Your task to perform on an android device: turn off data saver in the chrome app Image 0: 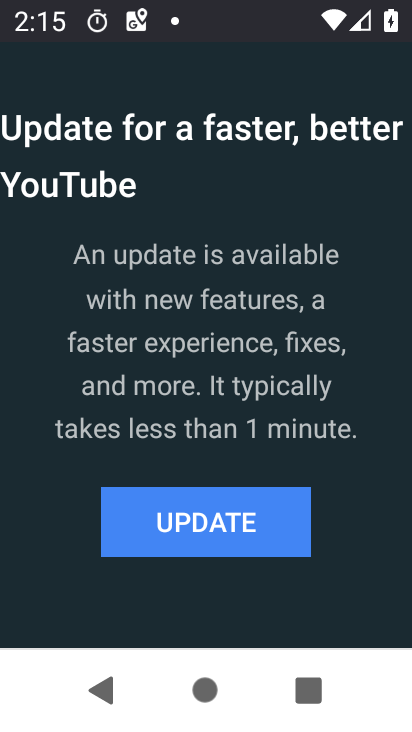
Step 0: press home button
Your task to perform on an android device: turn off data saver in the chrome app Image 1: 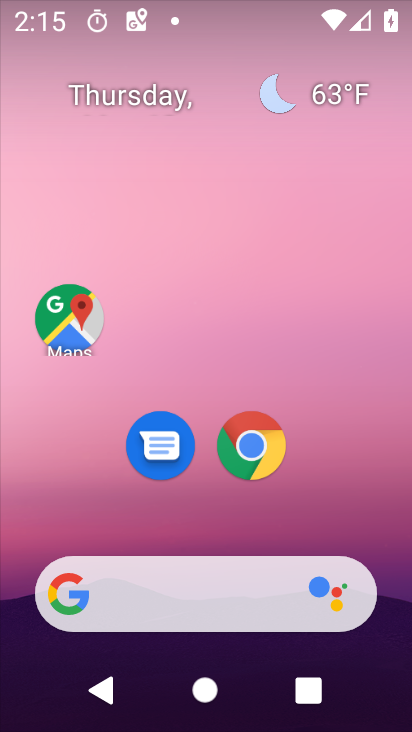
Step 1: click (253, 419)
Your task to perform on an android device: turn off data saver in the chrome app Image 2: 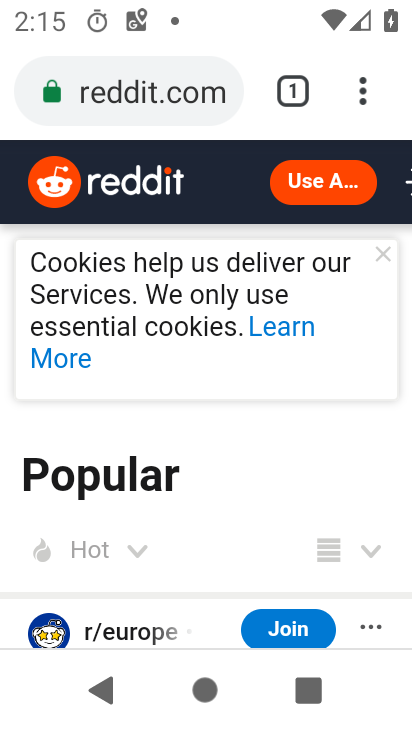
Step 2: drag from (353, 95) to (119, 460)
Your task to perform on an android device: turn off data saver in the chrome app Image 3: 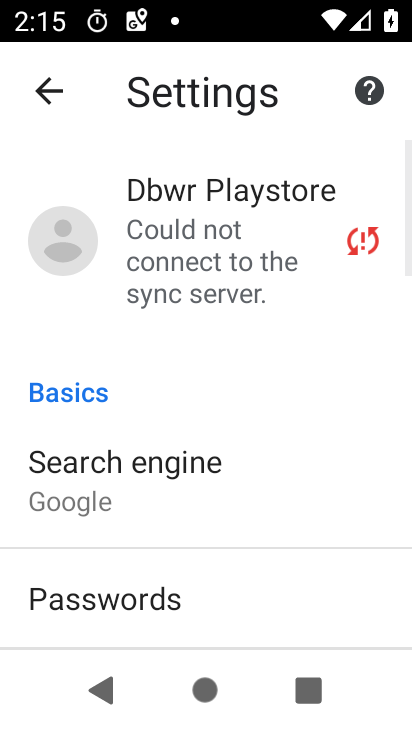
Step 3: drag from (139, 599) to (182, 86)
Your task to perform on an android device: turn off data saver in the chrome app Image 4: 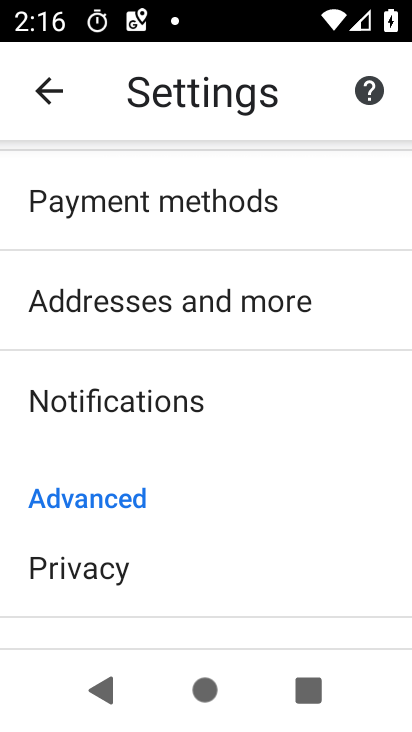
Step 4: drag from (173, 559) to (188, 82)
Your task to perform on an android device: turn off data saver in the chrome app Image 5: 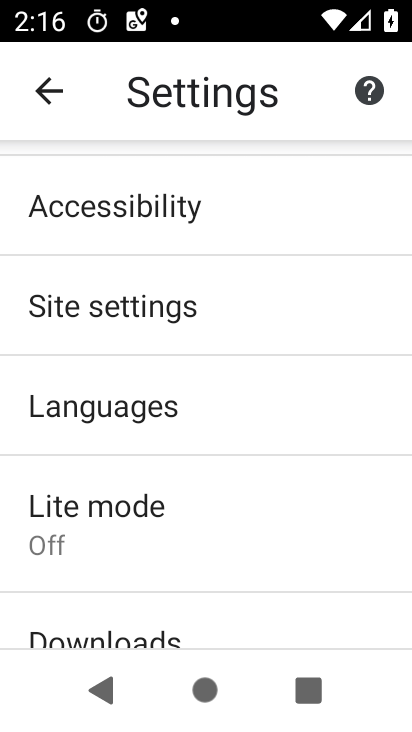
Step 5: click (95, 495)
Your task to perform on an android device: turn off data saver in the chrome app Image 6: 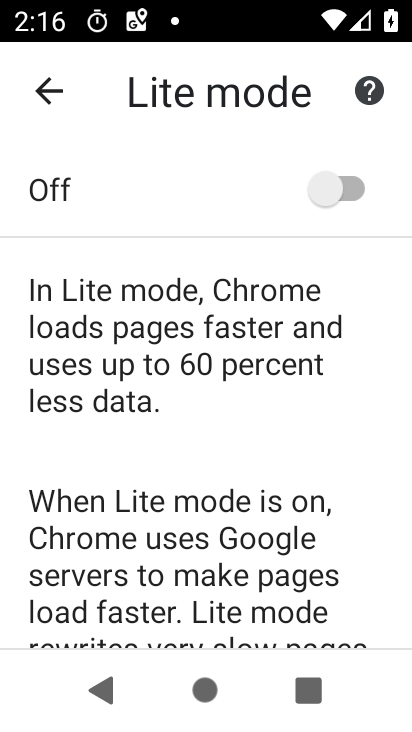
Step 6: task complete